Your task to perform on an android device: Open Google Chrome and click the shortcut for Amazon.com Image 0: 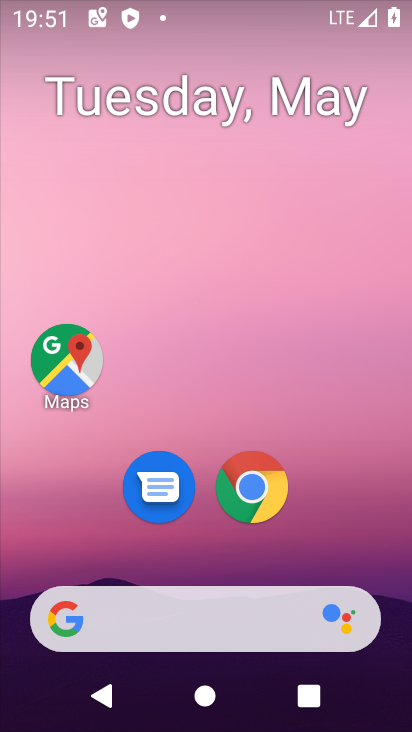
Step 0: click (253, 495)
Your task to perform on an android device: Open Google Chrome and click the shortcut for Amazon.com Image 1: 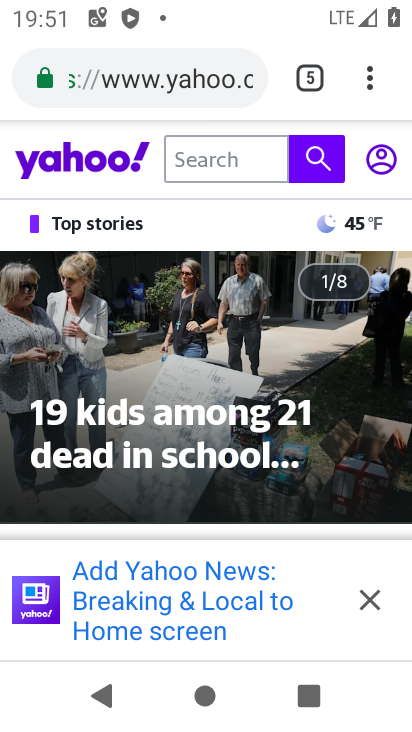
Step 1: click (373, 73)
Your task to perform on an android device: Open Google Chrome and click the shortcut for Amazon.com Image 2: 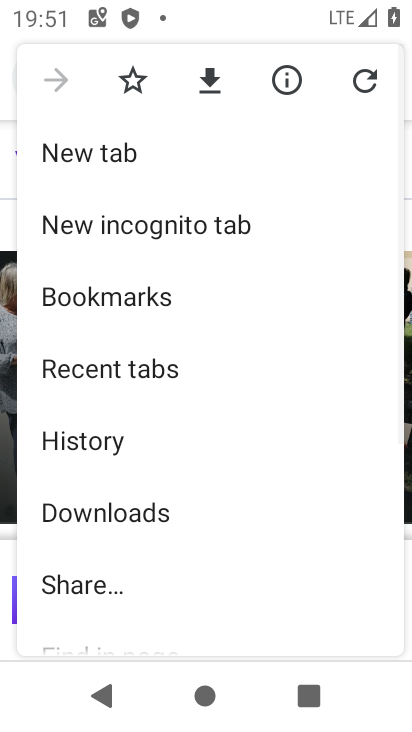
Step 2: click (106, 144)
Your task to perform on an android device: Open Google Chrome and click the shortcut for Amazon.com Image 3: 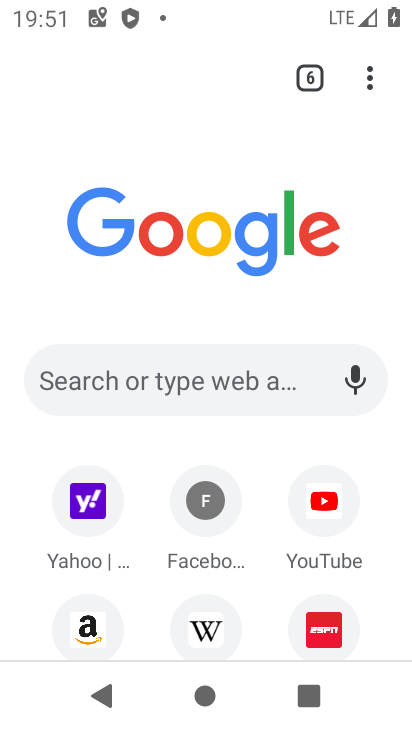
Step 3: click (85, 619)
Your task to perform on an android device: Open Google Chrome and click the shortcut for Amazon.com Image 4: 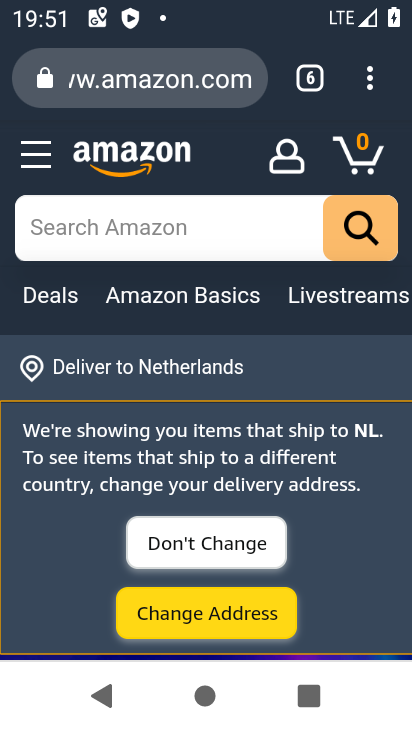
Step 4: task complete